Your task to perform on an android device: change notification settings in the gmail app Image 0: 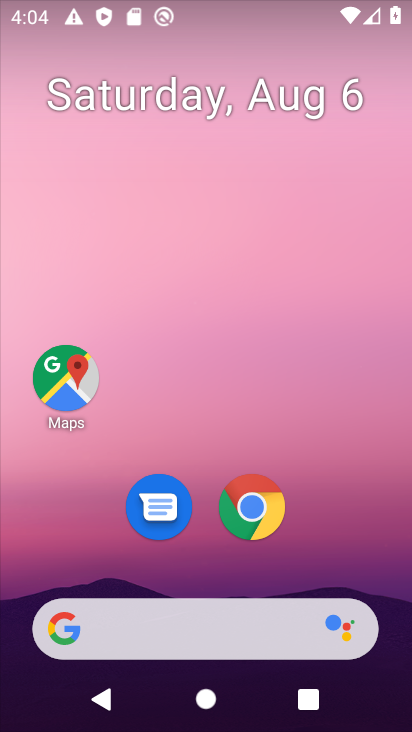
Step 0: drag from (213, 434) to (192, 140)
Your task to perform on an android device: change notification settings in the gmail app Image 1: 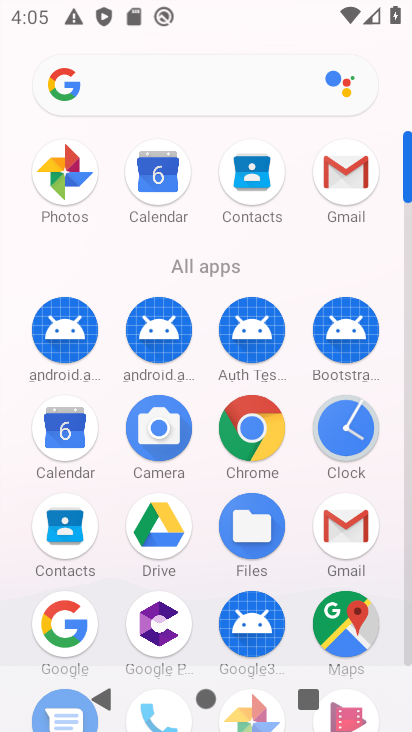
Step 1: click (354, 539)
Your task to perform on an android device: change notification settings in the gmail app Image 2: 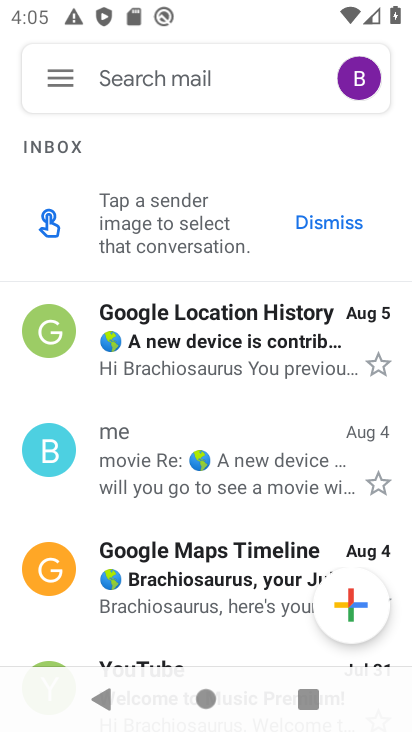
Step 2: task complete